Your task to perform on an android device: move a message to another label in the gmail app Image 0: 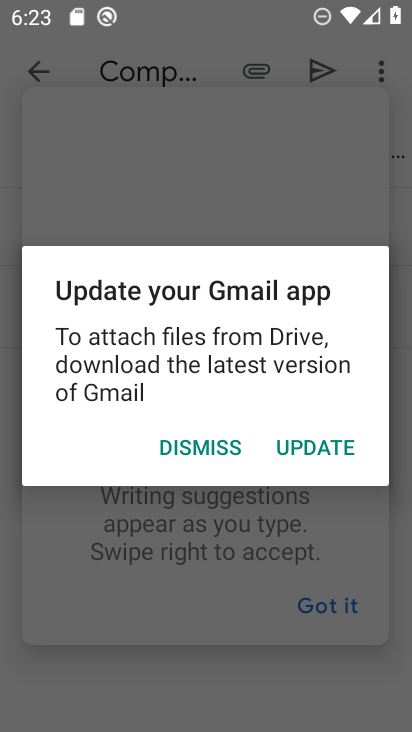
Step 0: press home button
Your task to perform on an android device: move a message to another label in the gmail app Image 1: 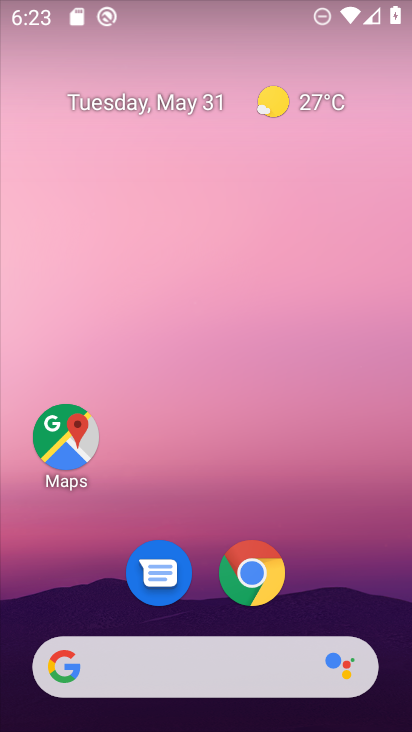
Step 1: drag from (379, 590) to (380, 22)
Your task to perform on an android device: move a message to another label in the gmail app Image 2: 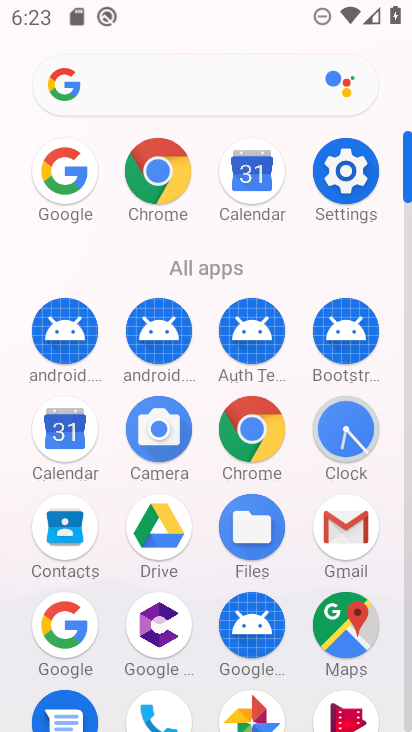
Step 2: click (351, 535)
Your task to perform on an android device: move a message to another label in the gmail app Image 3: 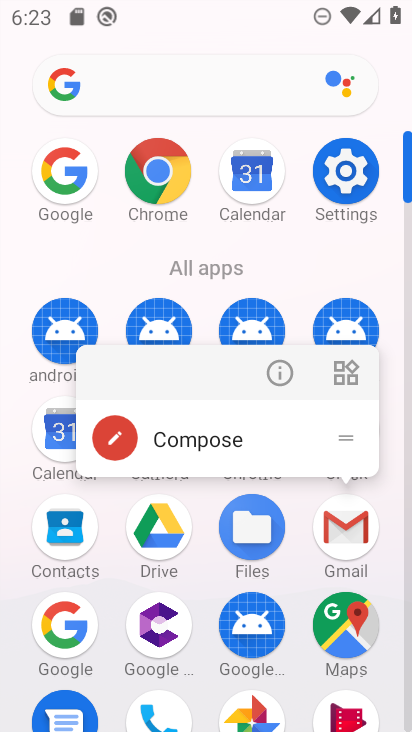
Step 3: click (351, 535)
Your task to perform on an android device: move a message to another label in the gmail app Image 4: 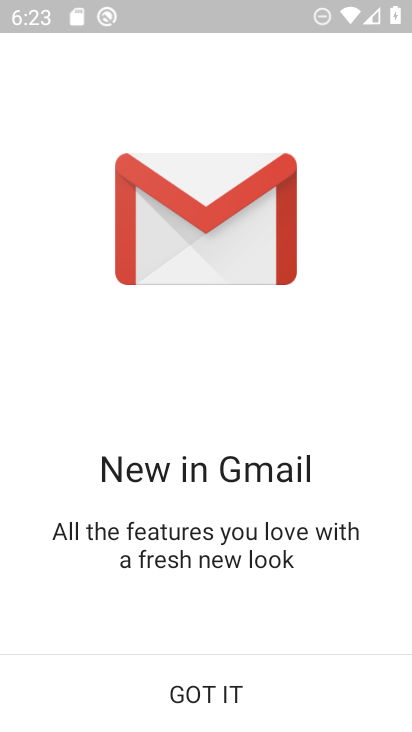
Step 4: click (139, 681)
Your task to perform on an android device: move a message to another label in the gmail app Image 5: 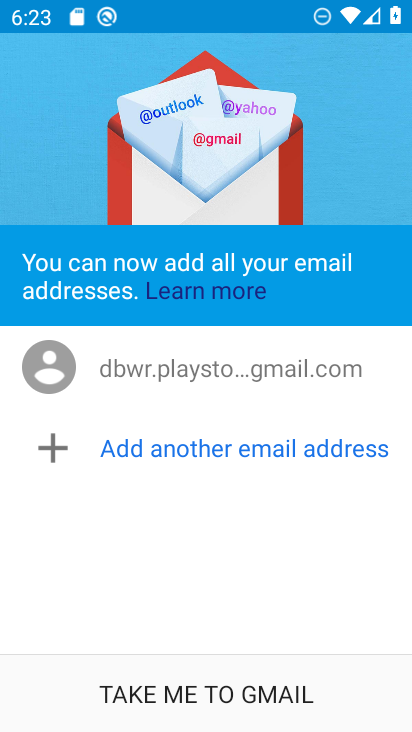
Step 5: click (139, 681)
Your task to perform on an android device: move a message to another label in the gmail app Image 6: 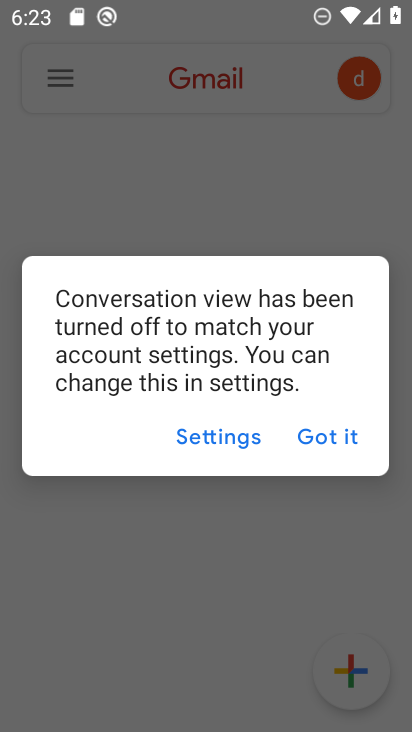
Step 6: click (325, 436)
Your task to perform on an android device: move a message to another label in the gmail app Image 7: 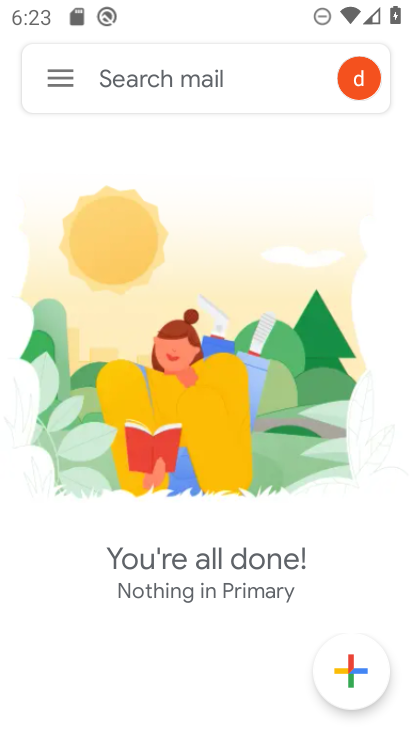
Step 7: task complete